Your task to perform on an android device: Go to Yahoo.com Image 0: 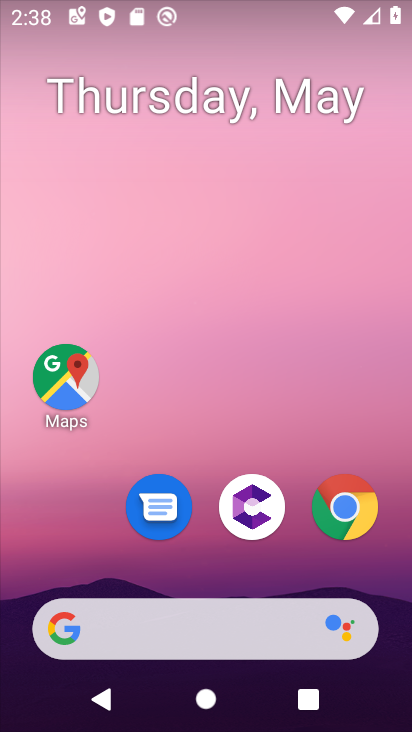
Step 0: press home button
Your task to perform on an android device: Go to Yahoo.com Image 1: 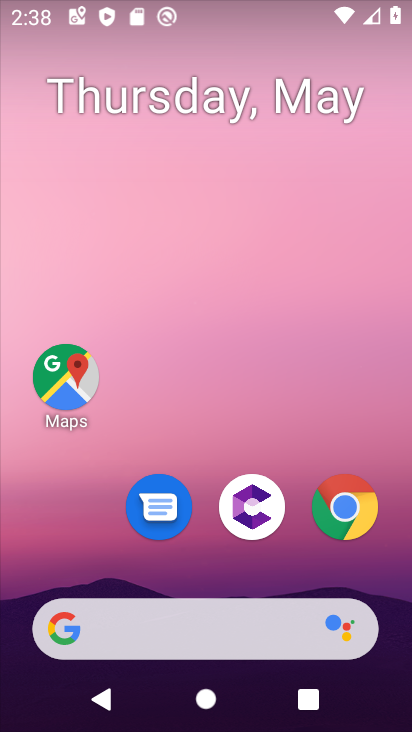
Step 1: click (63, 640)
Your task to perform on an android device: Go to Yahoo.com Image 2: 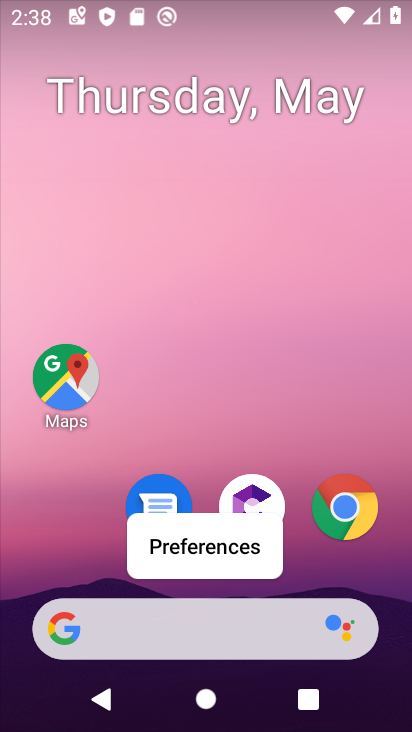
Step 2: click (65, 644)
Your task to perform on an android device: Go to Yahoo.com Image 3: 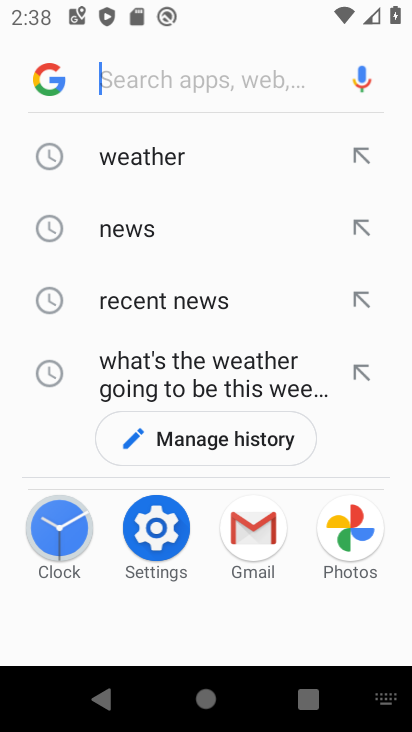
Step 3: click (286, 716)
Your task to perform on an android device: Go to Yahoo.com Image 4: 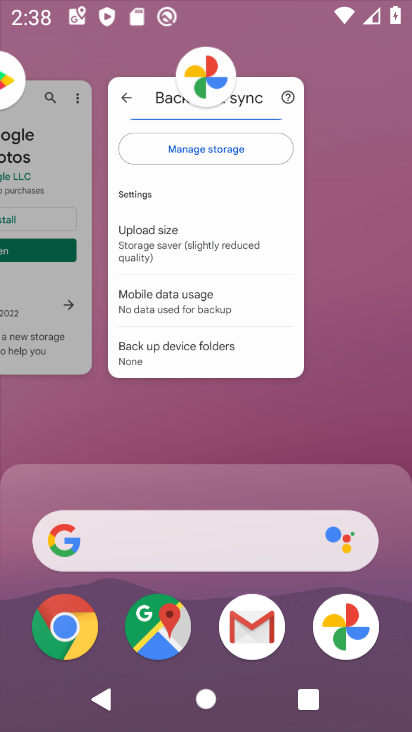
Step 4: click (358, 403)
Your task to perform on an android device: Go to Yahoo.com Image 5: 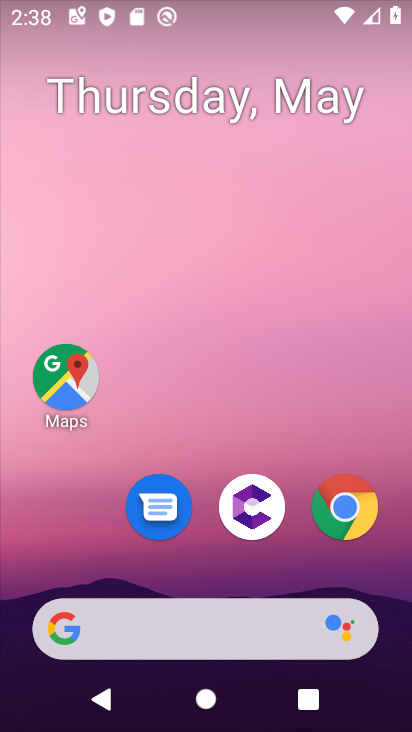
Step 5: click (79, 616)
Your task to perform on an android device: Go to Yahoo.com Image 6: 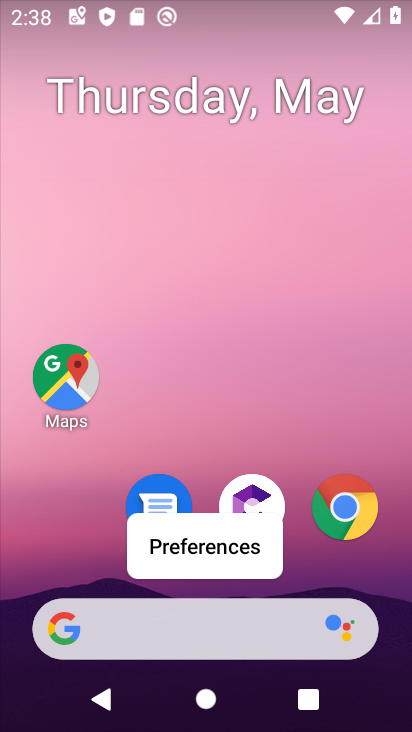
Step 6: click (47, 626)
Your task to perform on an android device: Go to Yahoo.com Image 7: 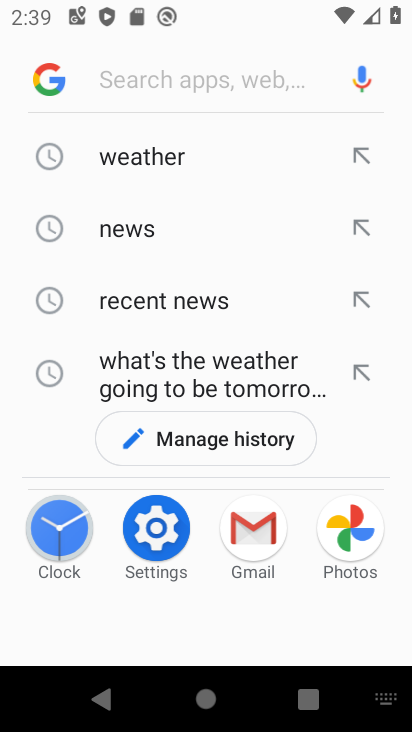
Step 7: type "Yahoo.com"
Your task to perform on an android device: Go to Yahoo.com Image 8: 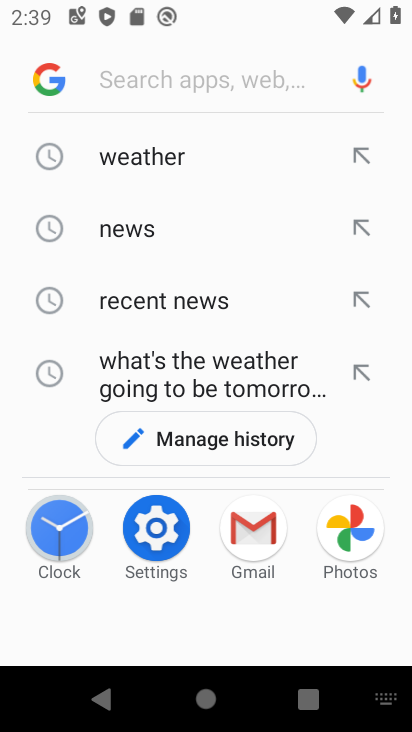
Step 8: click (240, 97)
Your task to perform on an android device: Go to Yahoo.com Image 9: 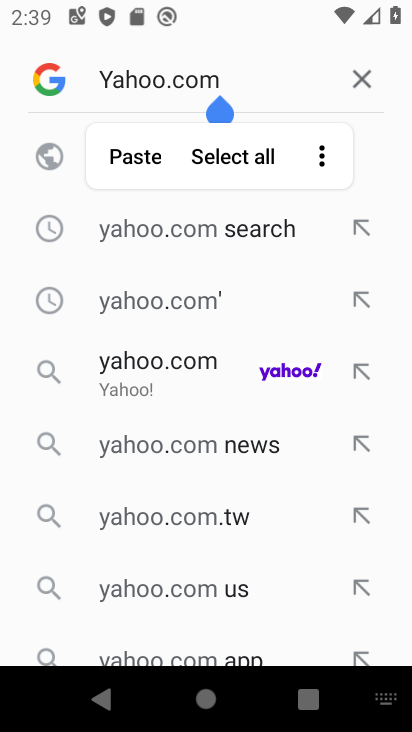
Step 9: click (120, 172)
Your task to perform on an android device: Go to Yahoo.com Image 10: 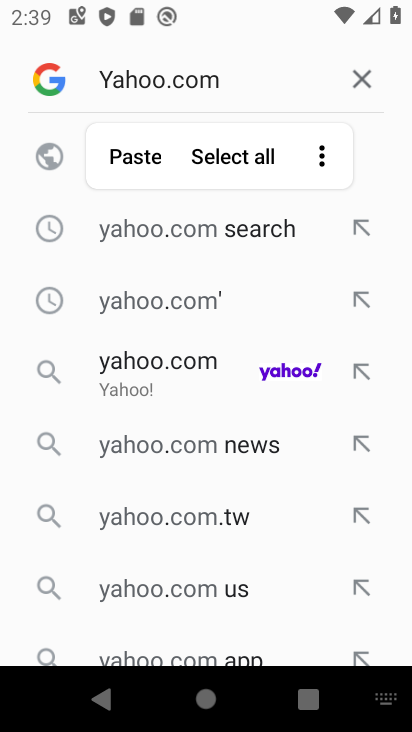
Step 10: click (265, 94)
Your task to perform on an android device: Go to Yahoo.com Image 11: 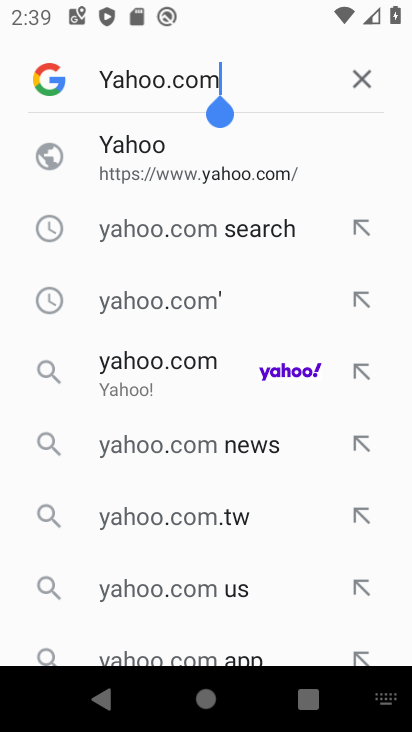
Step 11: click (198, 196)
Your task to perform on an android device: Go to Yahoo.com Image 12: 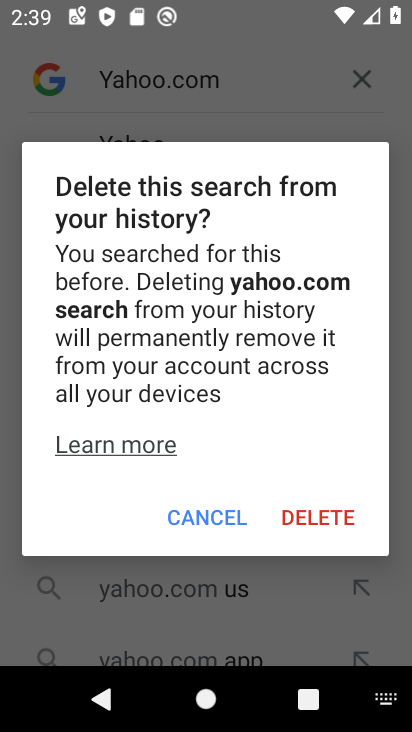
Step 12: click (165, 152)
Your task to perform on an android device: Go to Yahoo.com Image 13: 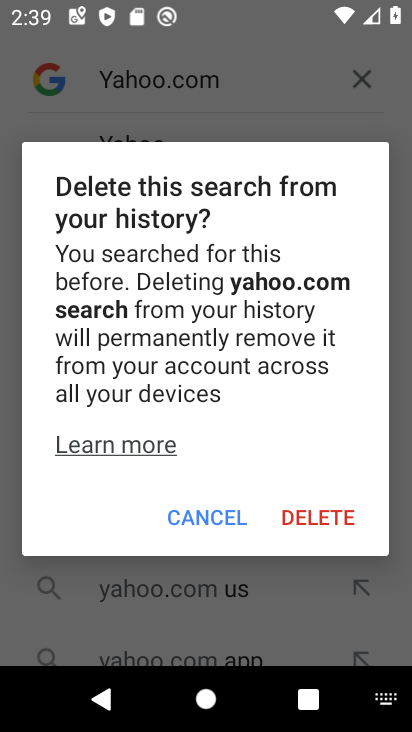
Step 13: click (212, 527)
Your task to perform on an android device: Go to Yahoo.com Image 14: 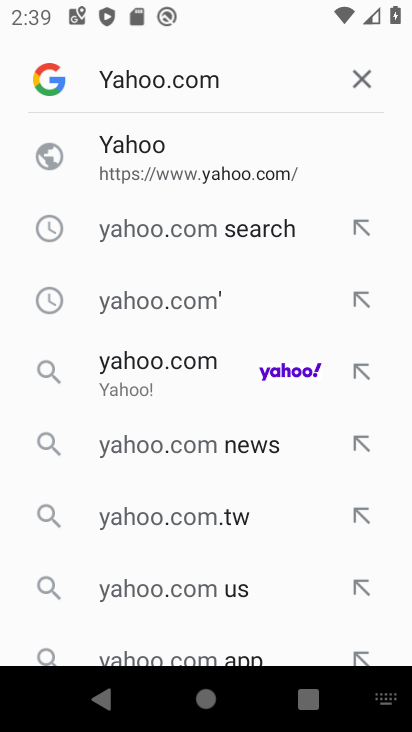
Step 14: click (121, 141)
Your task to perform on an android device: Go to Yahoo.com Image 15: 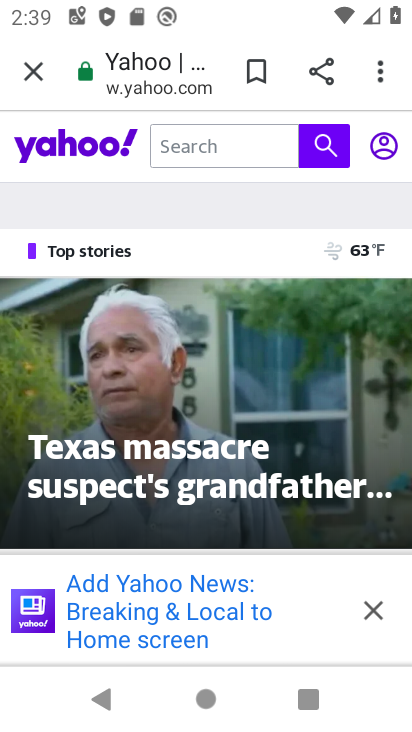
Step 15: task complete